Your task to perform on an android device: Open Maps and search for coffee Image 0: 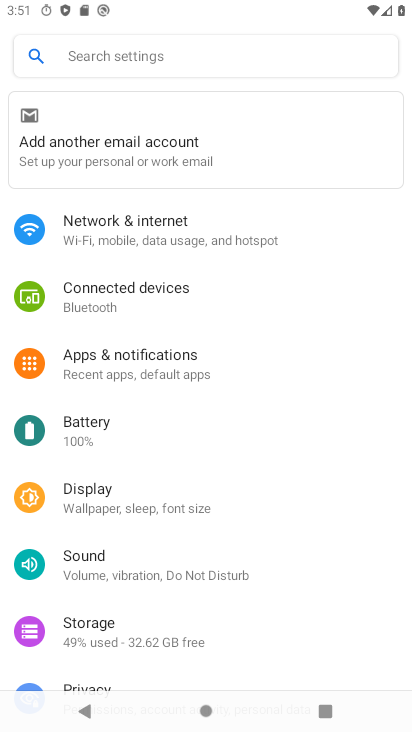
Step 0: press home button
Your task to perform on an android device: Open Maps and search for coffee Image 1: 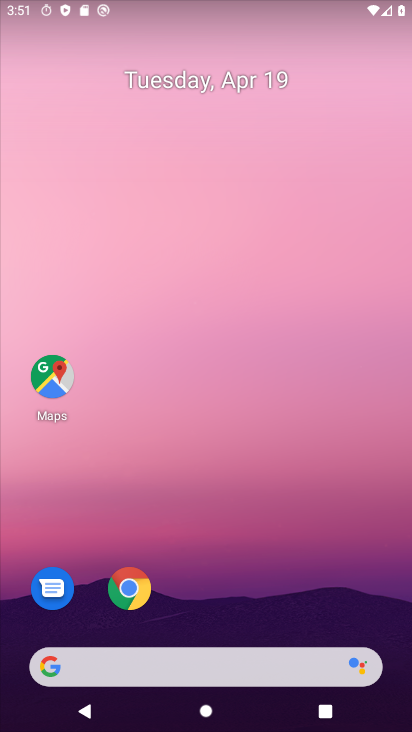
Step 1: click (56, 364)
Your task to perform on an android device: Open Maps and search for coffee Image 2: 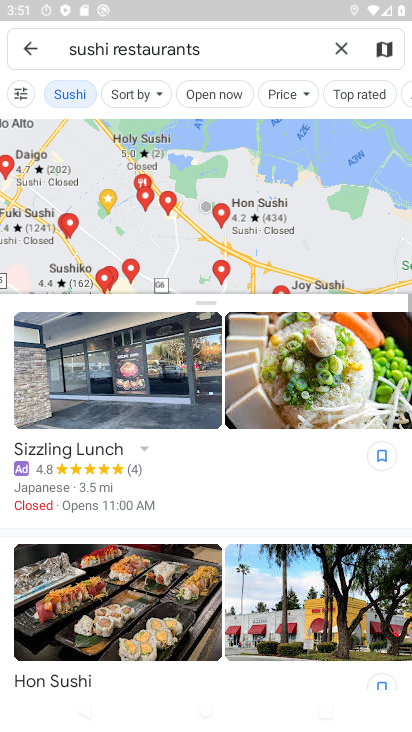
Step 2: click (337, 40)
Your task to perform on an android device: Open Maps and search for coffee Image 3: 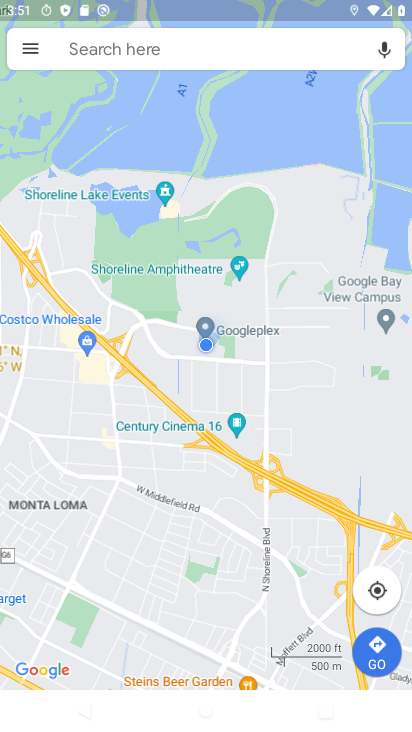
Step 3: click (168, 44)
Your task to perform on an android device: Open Maps and search for coffee Image 4: 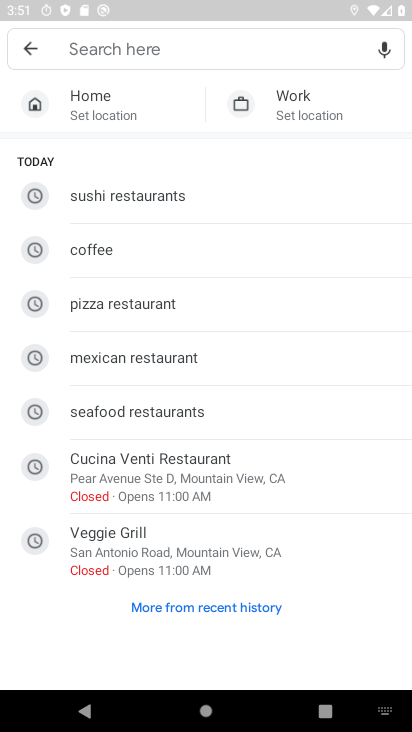
Step 4: click (81, 233)
Your task to perform on an android device: Open Maps and search for coffee Image 5: 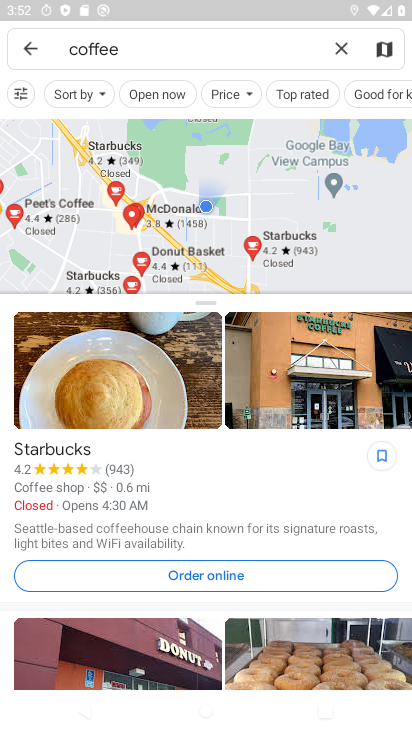
Step 5: task complete